Your task to perform on an android device: toggle sleep mode Image 0: 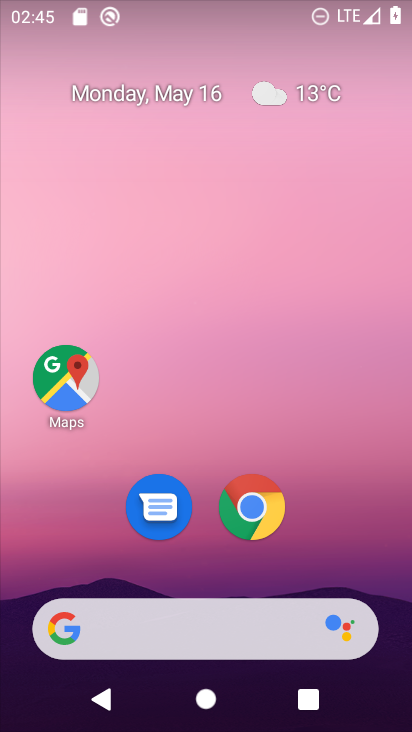
Step 0: drag from (327, 530) to (216, 61)
Your task to perform on an android device: toggle sleep mode Image 1: 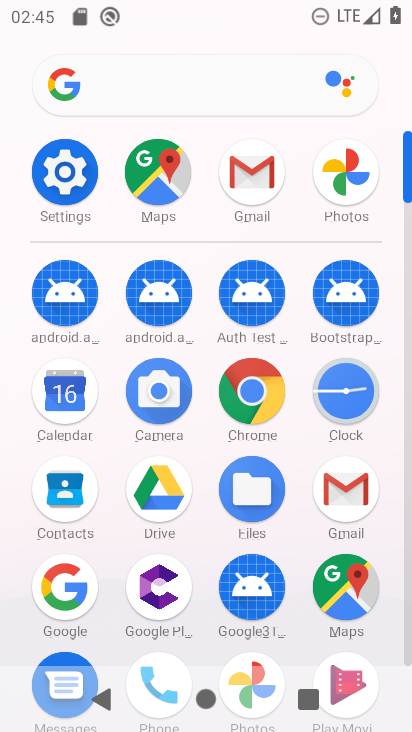
Step 1: click (86, 188)
Your task to perform on an android device: toggle sleep mode Image 2: 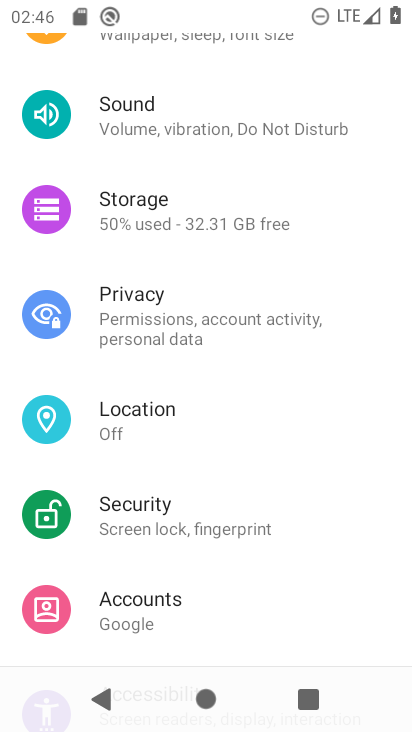
Step 2: drag from (200, 146) to (219, 439)
Your task to perform on an android device: toggle sleep mode Image 3: 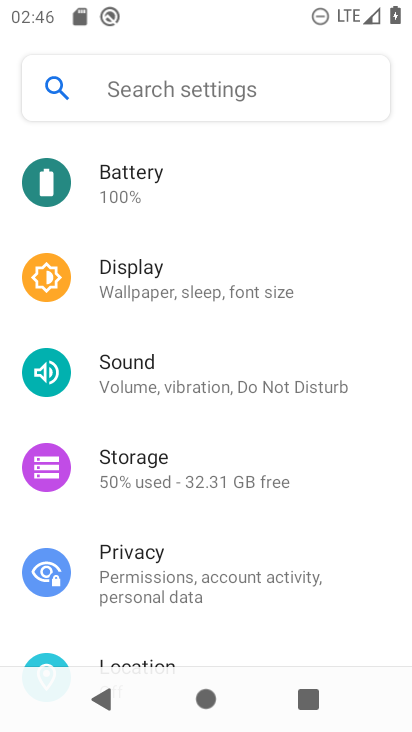
Step 3: click (191, 279)
Your task to perform on an android device: toggle sleep mode Image 4: 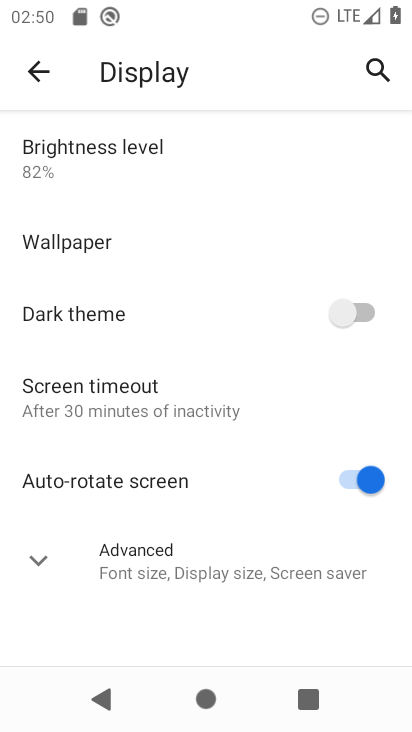
Step 4: task complete